Your task to perform on an android device: Is it going to rain this weekend? Image 0: 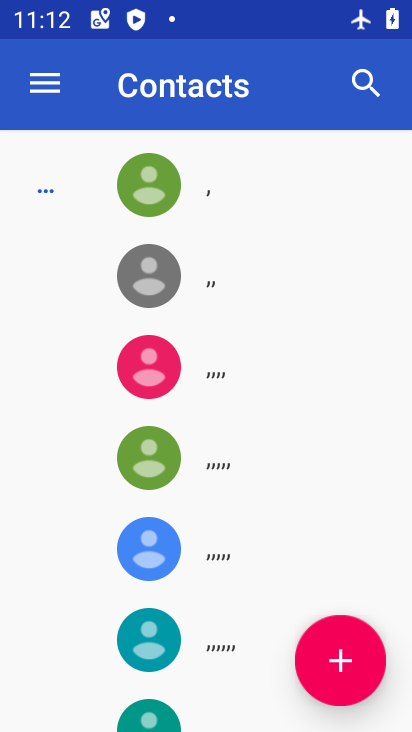
Step 0: press home button
Your task to perform on an android device: Is it going to rain this weekend? Image 1: 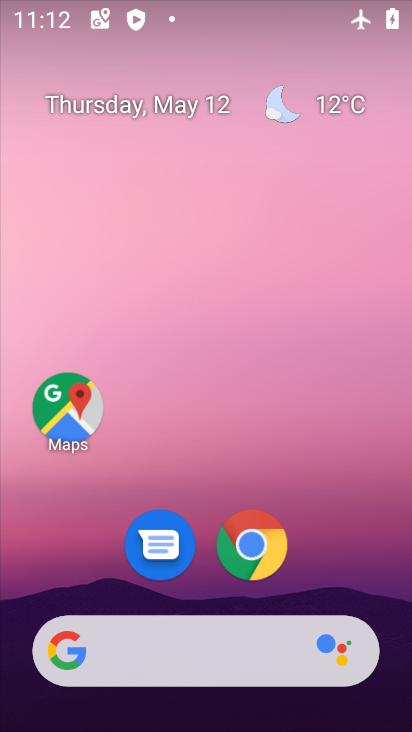
Step 1: drag from (200, 568) to (218, 26)
Your task to perform on an android device: Is it going to rain this weekend? Image 2: 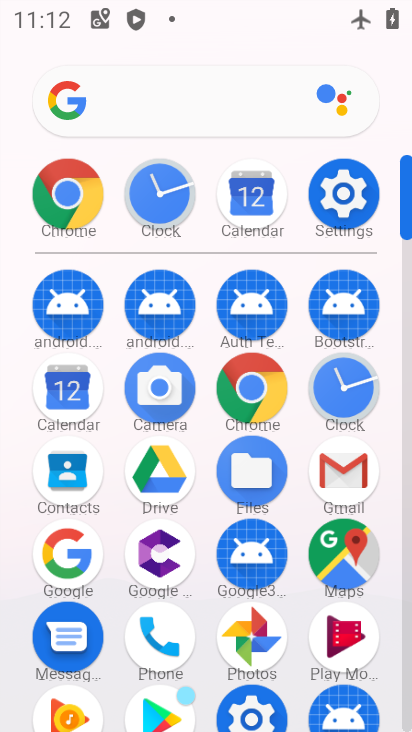
Step 2: press home button
Your task to perform on an android device: Is it going to rain this weekend? Image 3: 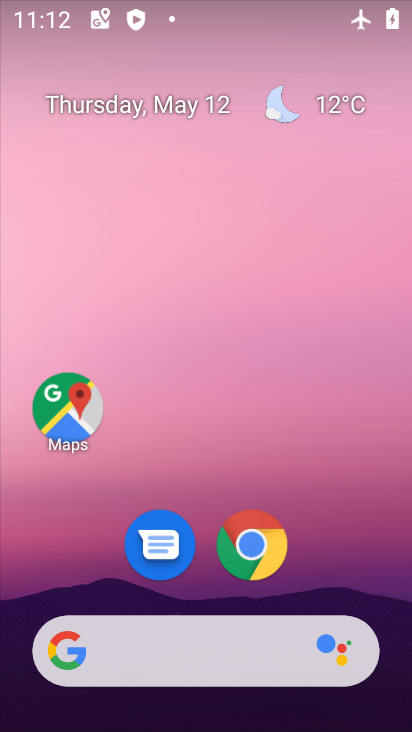
Step 3: click (329, 103)
Your task to perform on an android device: Is it going to rain this weekend? Image 4: 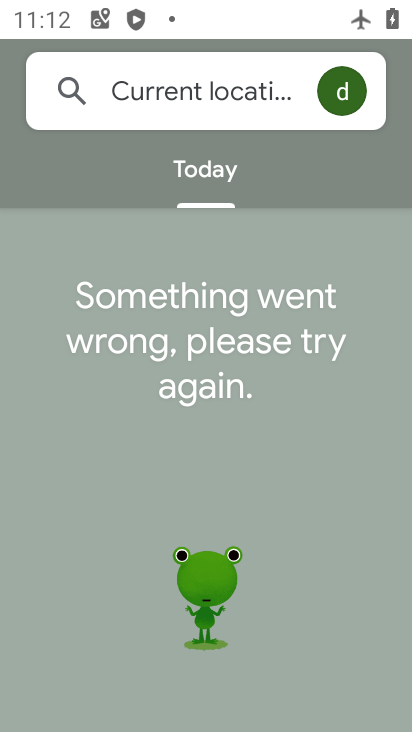
Step 4: drag from (195, 211) to (245, 697)
Your task to perform on an android device: Is it going to rain this weekend? Image 5: 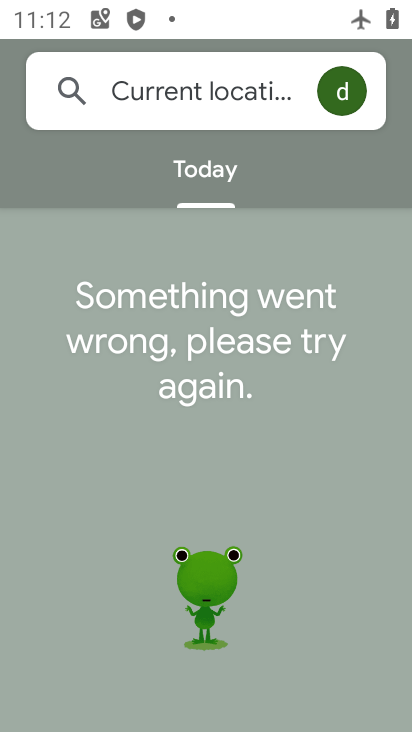
Step 5: click (202, 169)
Your task to perform on an android device: Is it going to rain this weekend? Image 6: 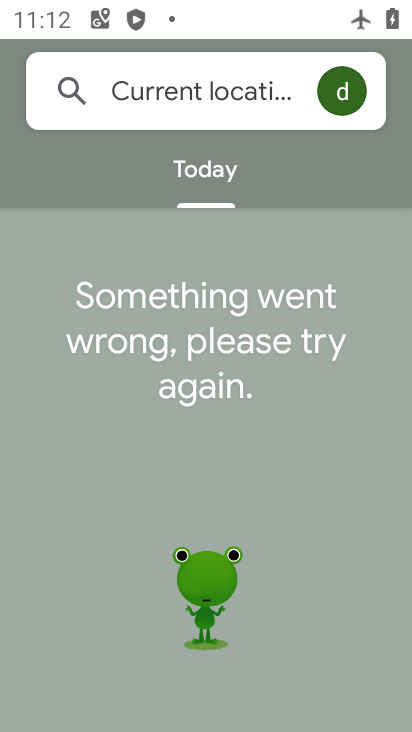
Step 6: task complete